Your task to perform on an android device: change the clock display to digital Image 0: 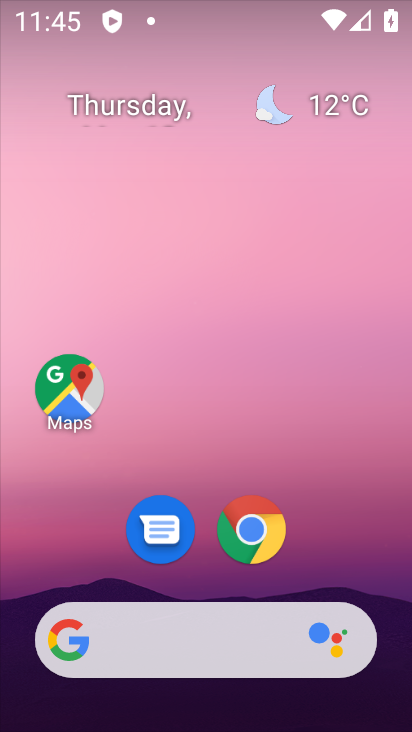
Step 0: drag from (326, 565) to (326, 230)
Your task to perform on an android device: change the clock display to digital Image 1: 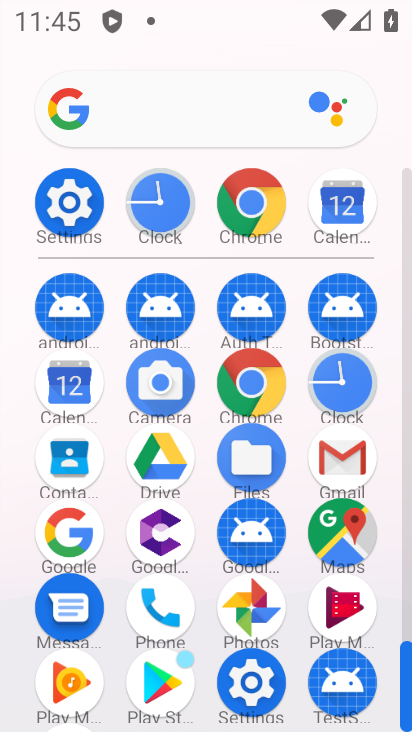
Step 1: click (326, 370)
Your task to perform on an android device: change the clock display to digital Image 2: 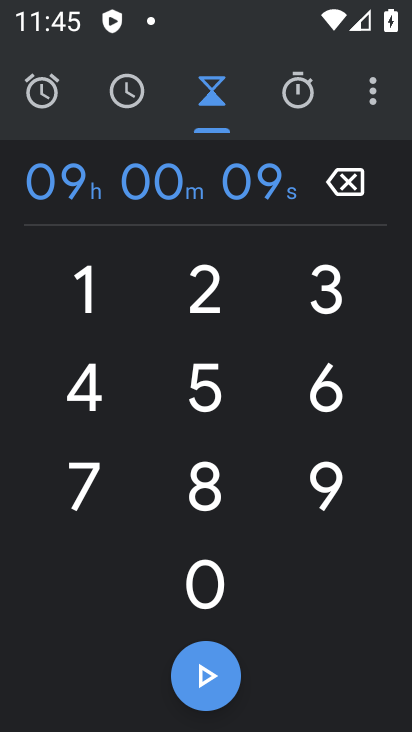
Step 2: click (357, 81)
Your task to perform on an android device: change the clock display to digital Image 3: 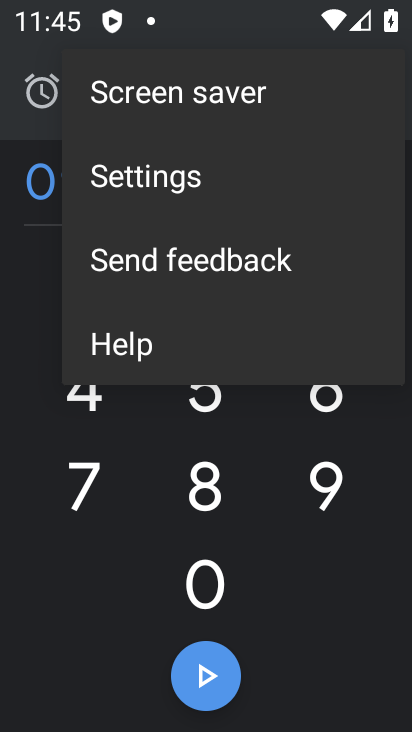
Step 3: click (126, 179)
Your task to perform on an android device: change the clock display to digital Image 4: 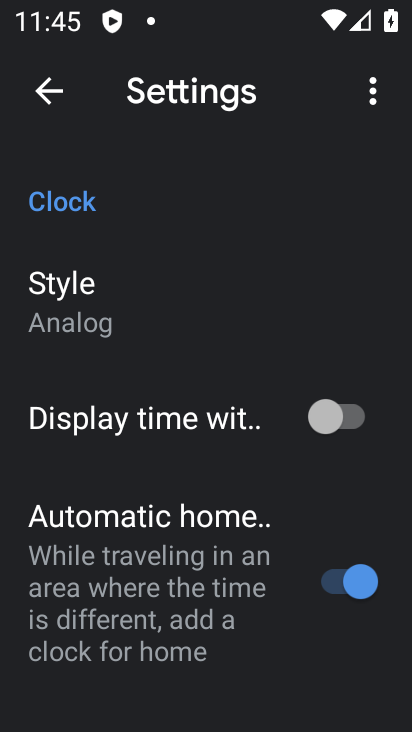
Step 4: click (91, 311)
Your task to perform on an android device: change the clock display to digital Image 5: 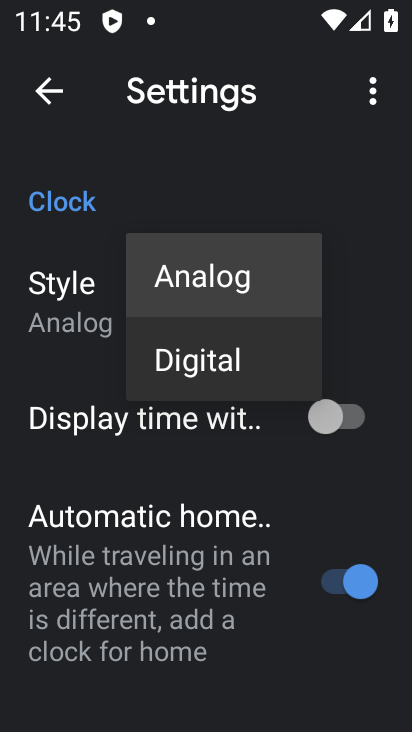
Step 5: click (162, 366)
Your task to perform on an android device: change the clock display to digital Image 6: 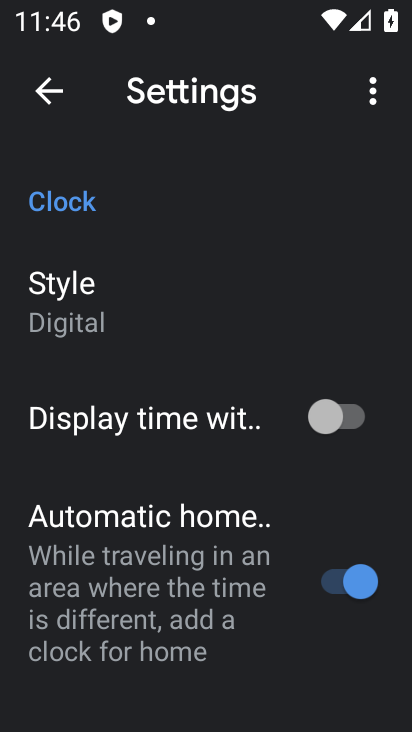
Step 6: task complete